Your task to perform on an android device: move an email to a new category in the gmail app Image 0: 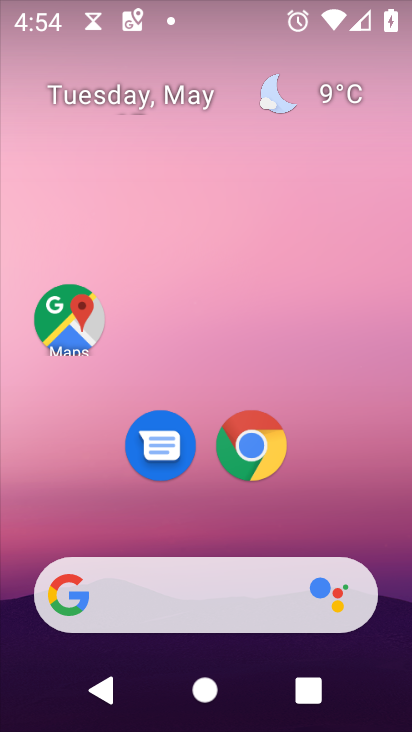
Step 0: drag from (241, 558) to (234, 206)
Your task to perform on an android device: move an email to a new category in the gmail app Image 1: 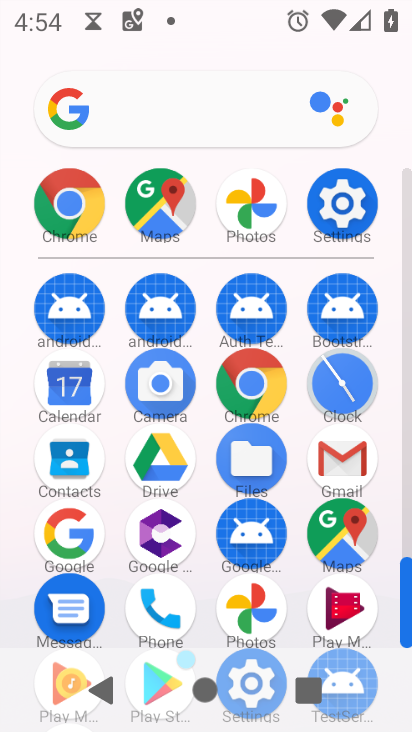
Step 1: click (360, 447)
Your task to perform on an android device: move an email to a new category in the gmail app Image 2: 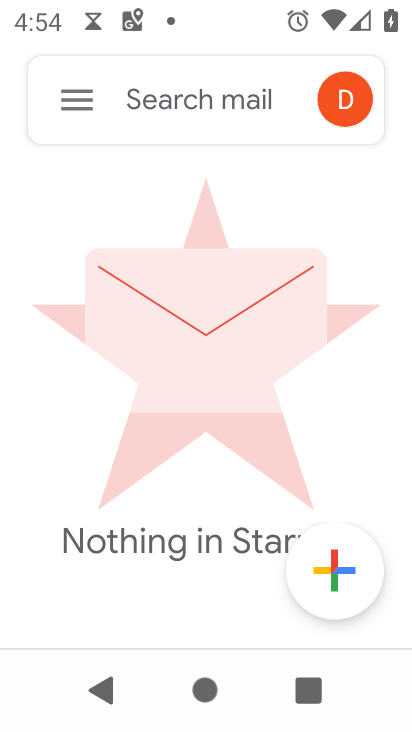
Step 2: task complete